Your task to perform on an android device: check google app version Image 0: 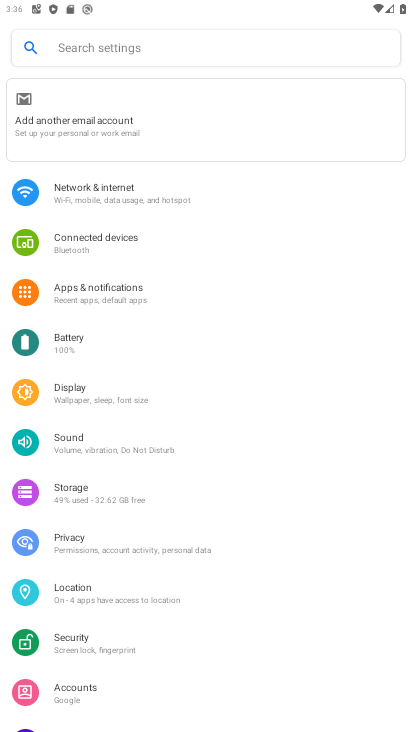
Step 0: press home button
Your task to perform on an android device: check google app version Image 1: 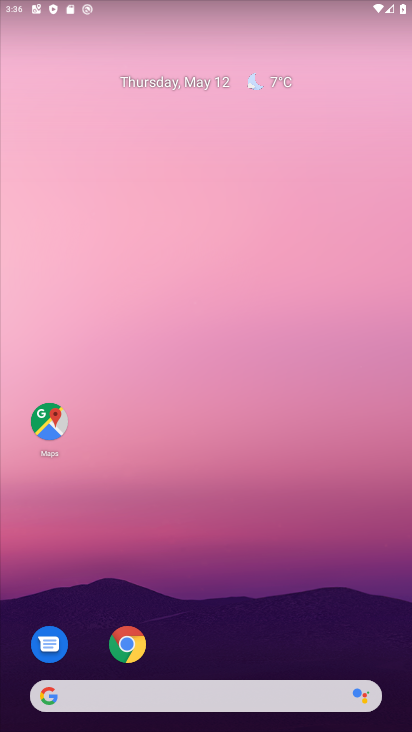
Step 1: drag from (209, 656) to (225, 136)
Your task to perform on an android device: check google app version Image 2: 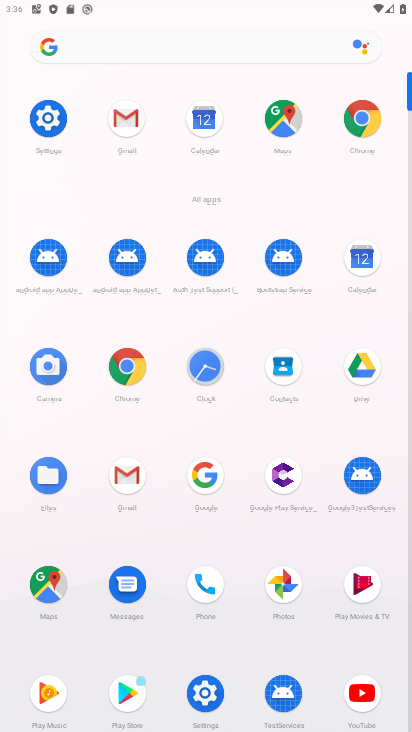
Step 2: click (203, 469)
Your task to perform on an android device: check google app version Image 3: 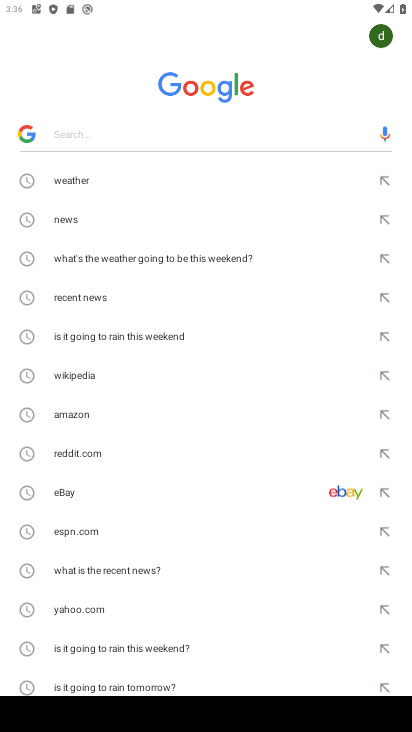
Step 3: click (139, 80)
Your task to perform on an android device: check google app version Image 4: 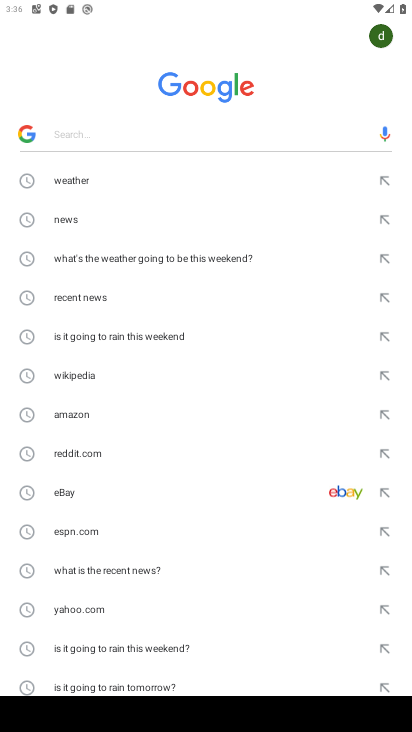
Step 4: task complete